Your task to perform on an android device: set default search engine in the chrome app Image 0: 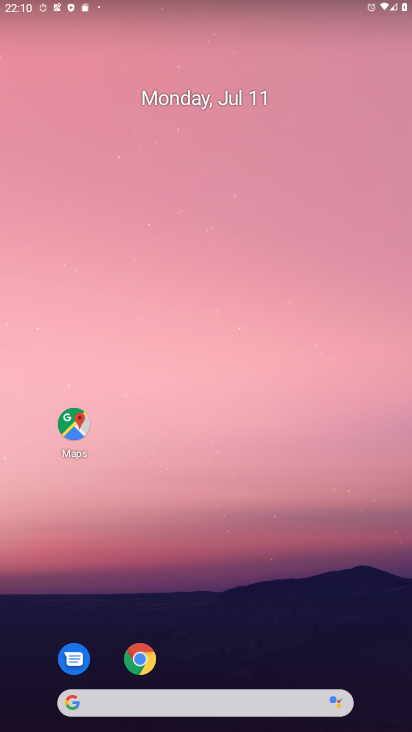
Step 0: drag from (208, 626) to (395, 455)
Your task to perform on an android device: set default search engine in the chrome app Image 1: 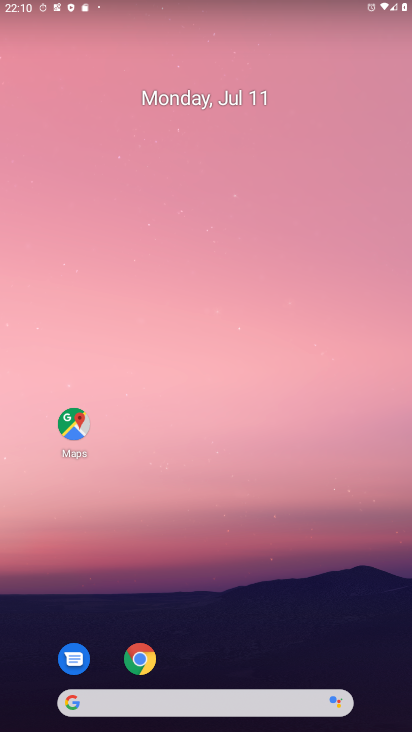
Step 1: drag from (184, 649) to (167, 67)
Your task to perform on an android device: set default search engine in the chrome app Image 2: 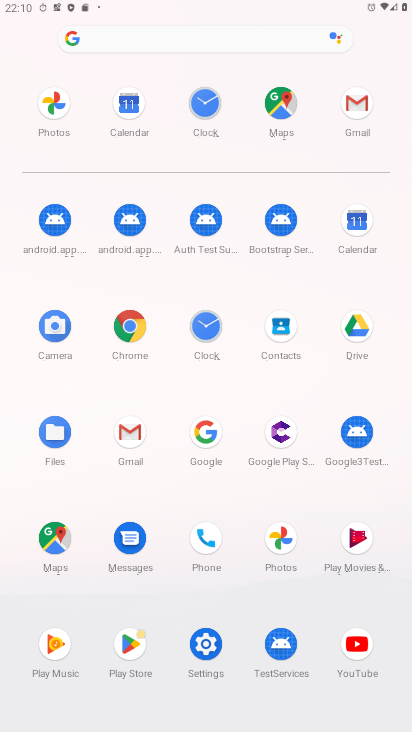
Step 2: click (126, 319)
Your task to perform on an android device: set default search engine in the chrome app Image 3: 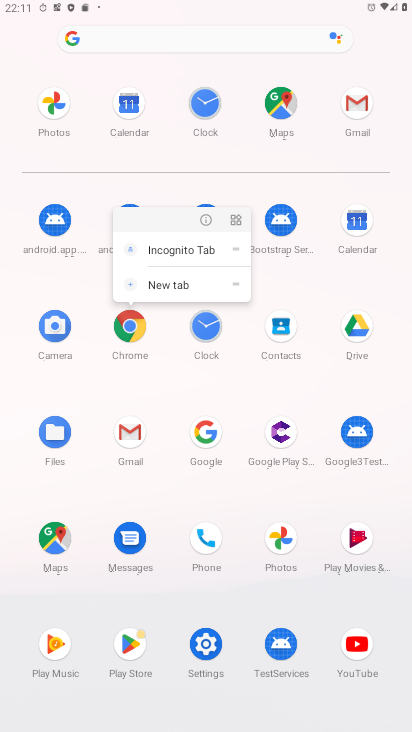
Step 3: click (202, 211)
Your task to perform on an android device: set default search engine in the chrome app Image 4: 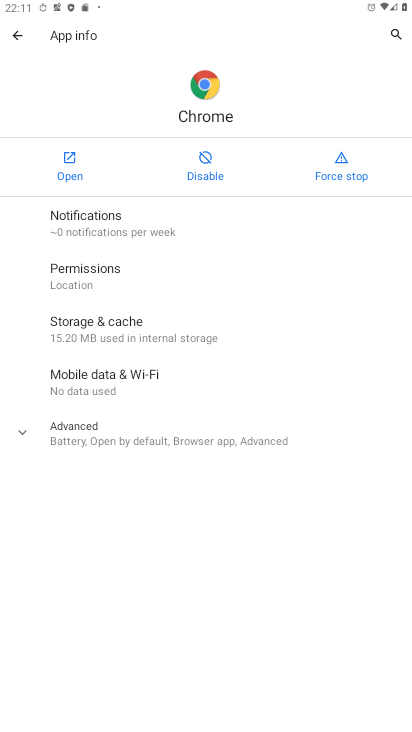
Step 4: drag from (176, 514) to (261, 92)
Your task to perform on an android device: set default search engine in the chrome app Image 5: 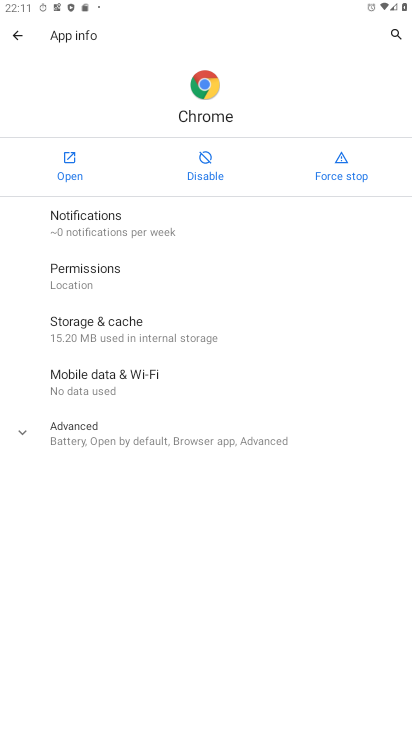
Step 5: click (68, 161)
Your task to perform on an android device: set default search engine in the chrome app Image 6: 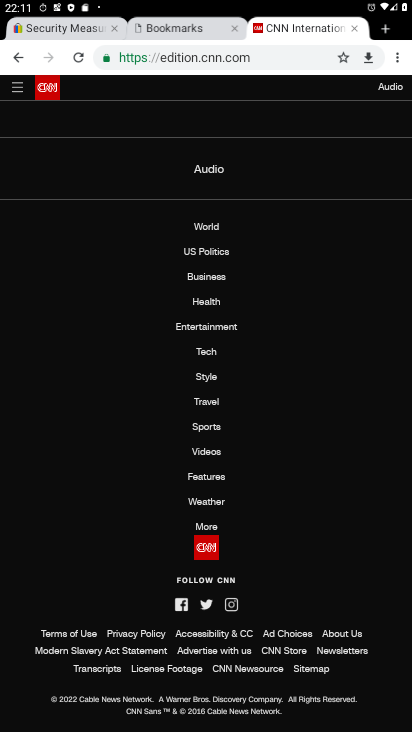
Step 6: click (263, 645)
Your task to perform on an android device: set default search engine in the chrome app Image 7: 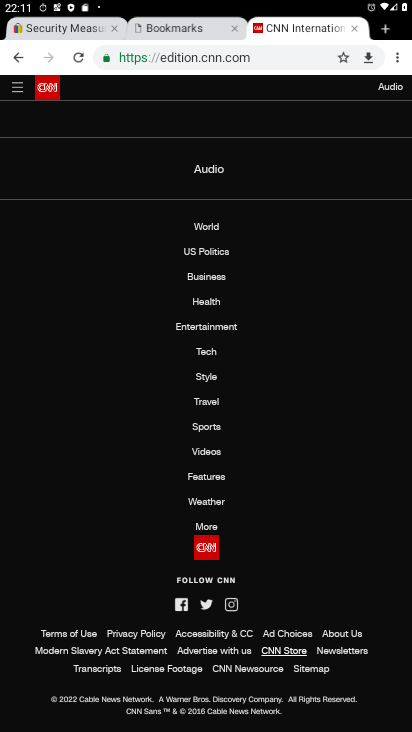
Step 7: click (400, 59)
Your task to perform on an android device: set default search engine in the chrome app Image 8: 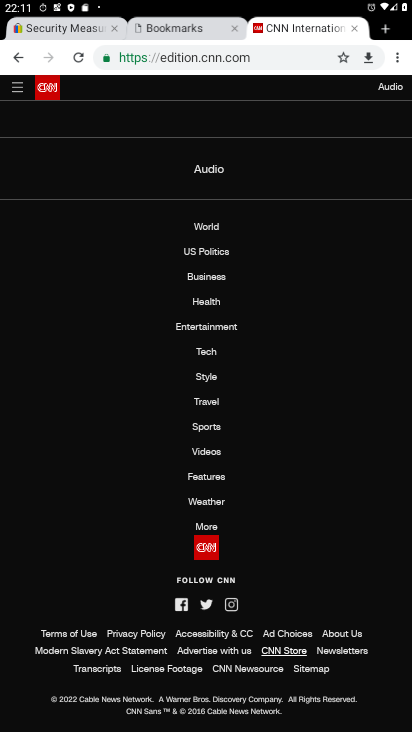
Step 8: click (405, 56)
Your task to perform on an android device: set default search engine in the chrome app Image 9: 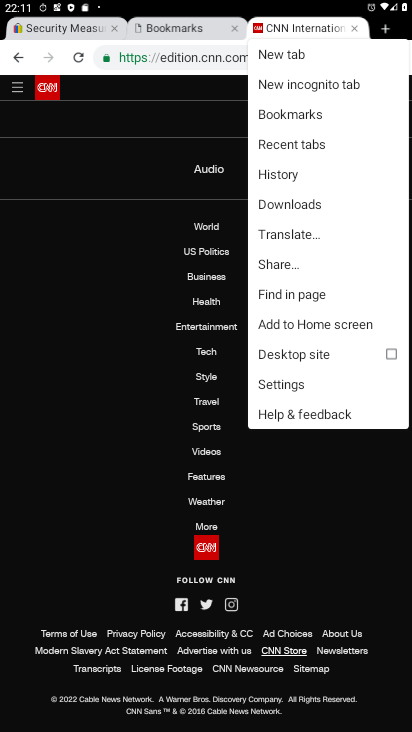
Step 9: click (277, 378)
Your task to perform on an android device: set default search engine in the chrome app Image 10: 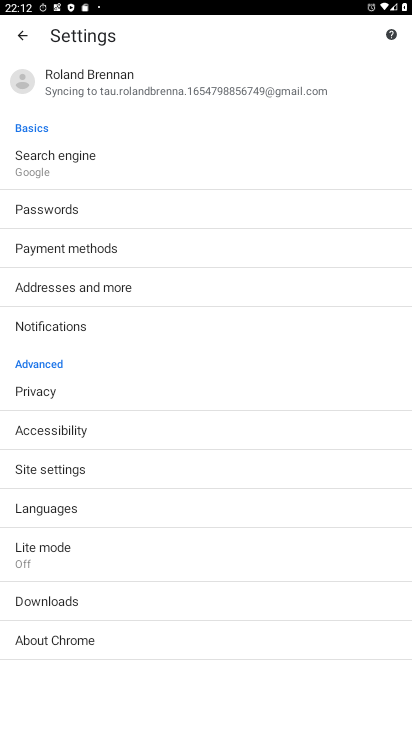
Step 10: drag from (235, 640) to (203, 258)
Your task to perform on an android device: set default search engine in the chrome app Image 11: 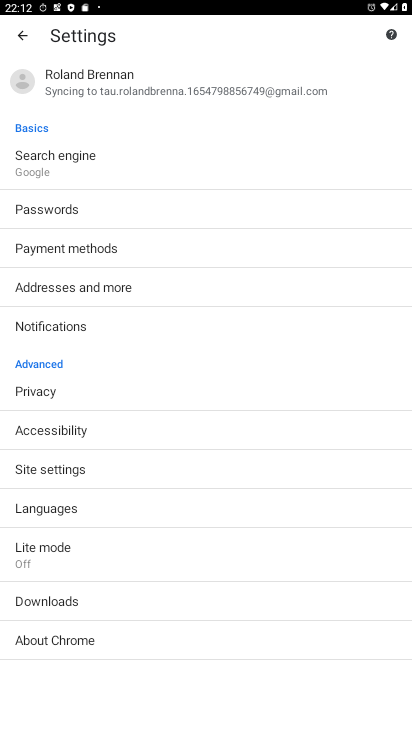
Step 11: click (89, 170)
Your task to perform on an android device: set default search engine in the chrome app Image 12: 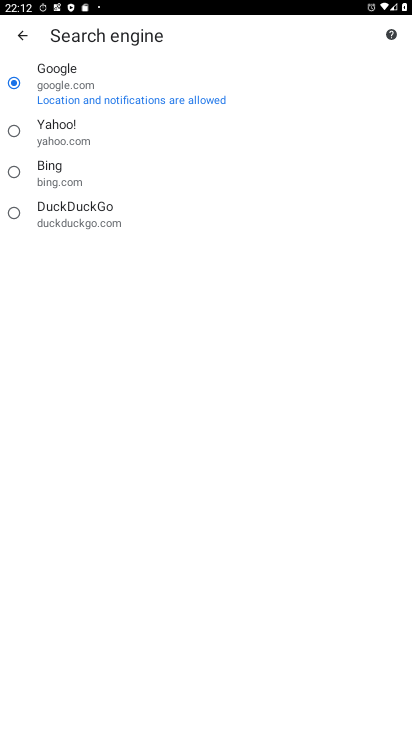
Step 12: task complete